Your task to perform on an android device: Open ESPN.com Image 0: 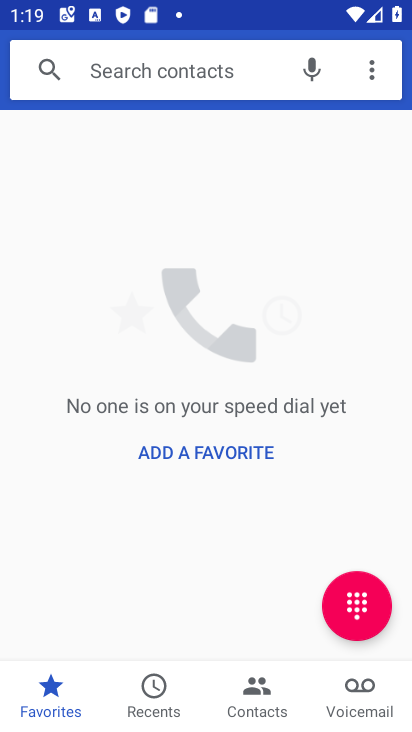
Step 0: press home button
Your task to perform on an android device: Open ESPN.com Image 1: 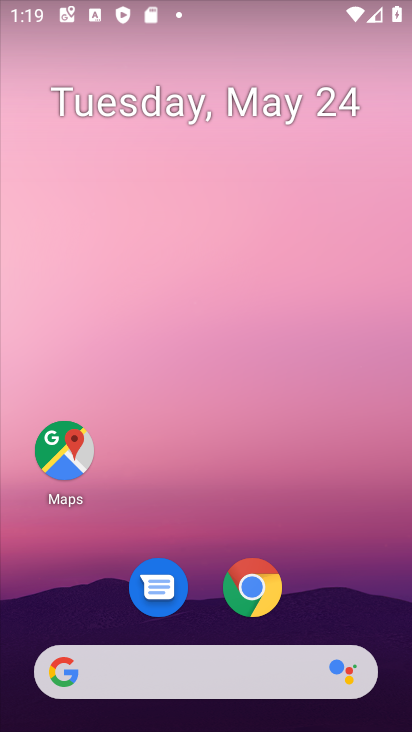
Step 1: click (96, 667)
Your task to perform on an android device: Open ESPN.com Image 2: 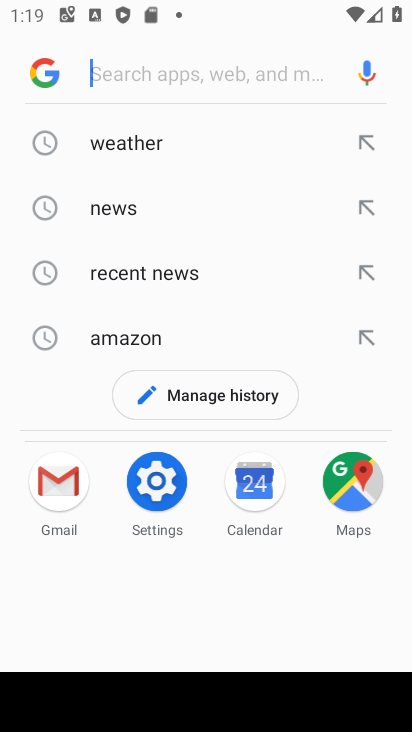
Step 2: type "espn.com"
Your task to perform on an android device: Open ESPN.com Image 3: 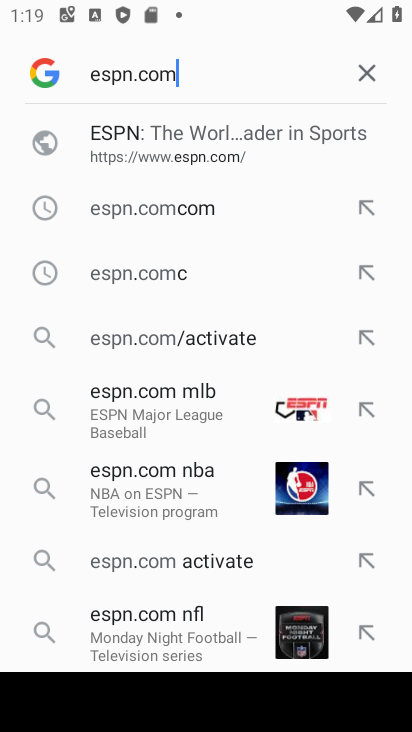
Step 3: click (170, 158)
Your task to perform on an android device: Open ESPN.com Image 4: 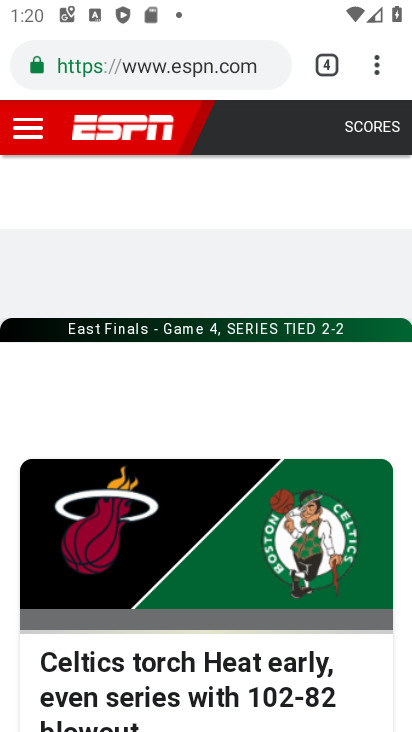
Step 4: task complete